Your task to perform on an android device: Go to Google Image 0: 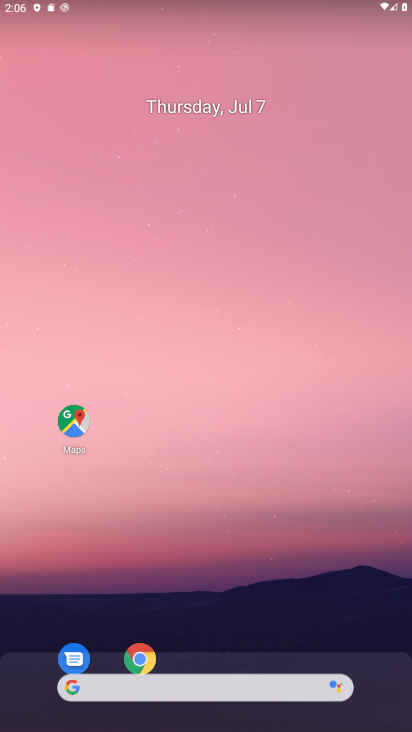
Step 0: drag from (221, 655) to (211, 7)
Your task to perform on an android device: Go to Google Image 1: 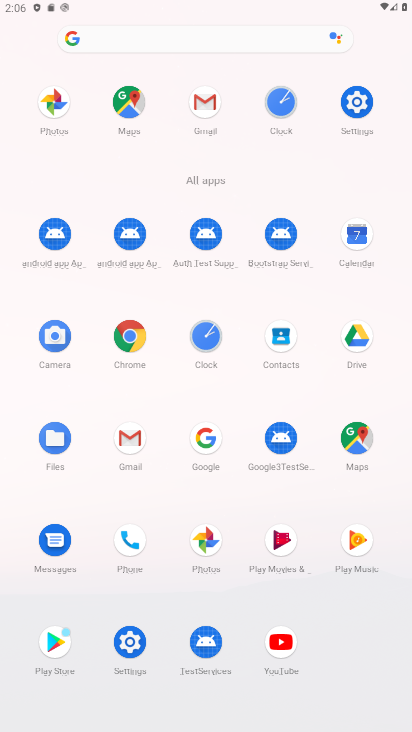
Step 1: click (196, 434)
Your task to perform on an android device: Go to Google Image 2: 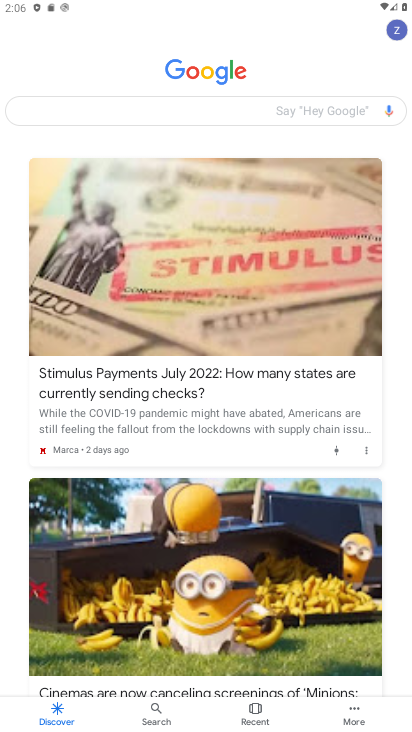
Step 2: click (148, 711)
Your task to perform on an android device: Go to Google Image 3: 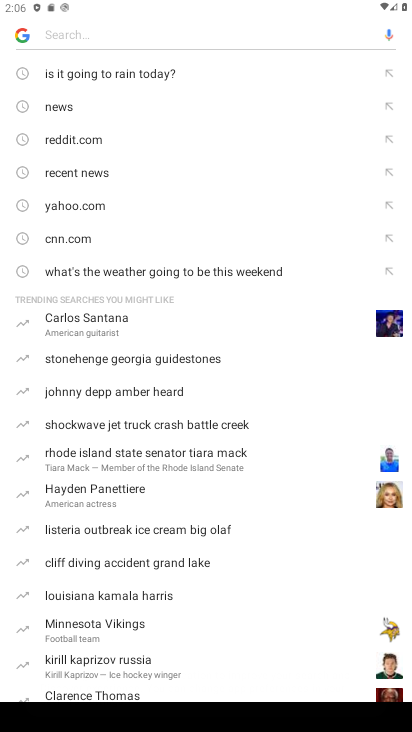
Step 3: press back button
Your task to perform on an android device: Go to Google Image 4: 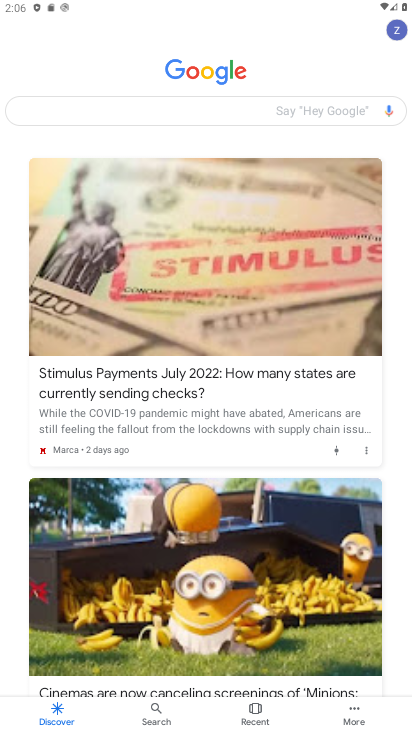
Step 4: click (259, 708)
Your task to perform on an android device: Go to Google Image 5: 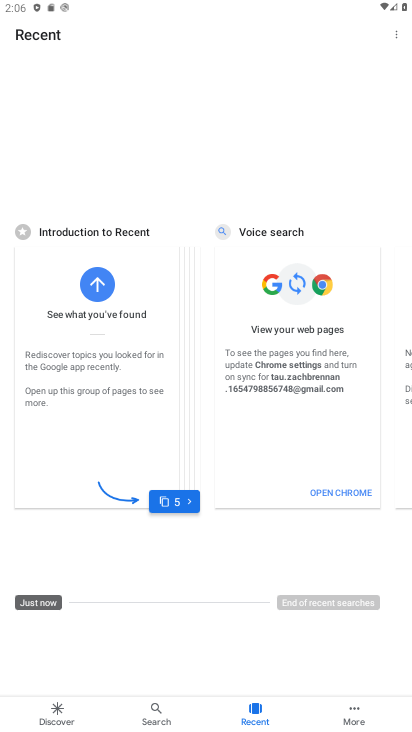
Step 5: click (349, 706)
Your task to perform on an android device: Go to Google Image 6: 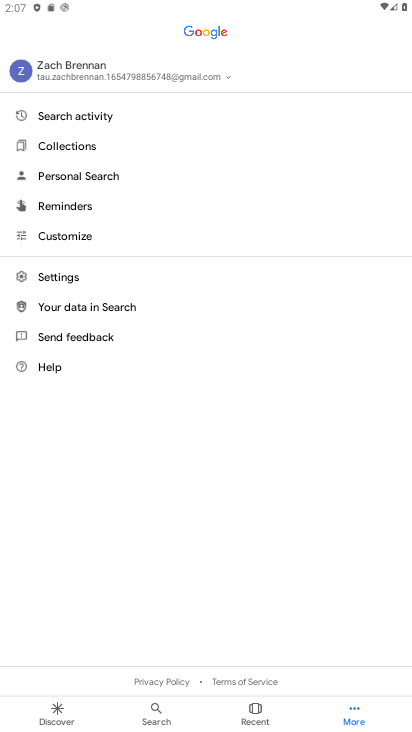
Step 6: task complete